Your task to perform on an android device: turn on data saver in the chrome app Image 0: 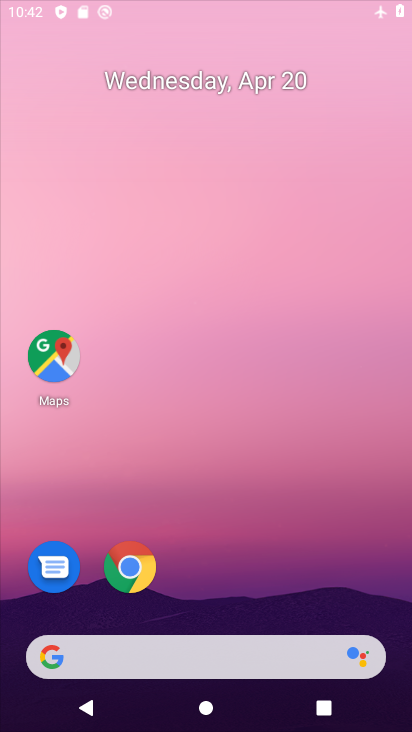
Step 0: drag from (274, 257) to (263, 179)
Your task to perform on an android device: turn on data saver in the chrome app Image 1: 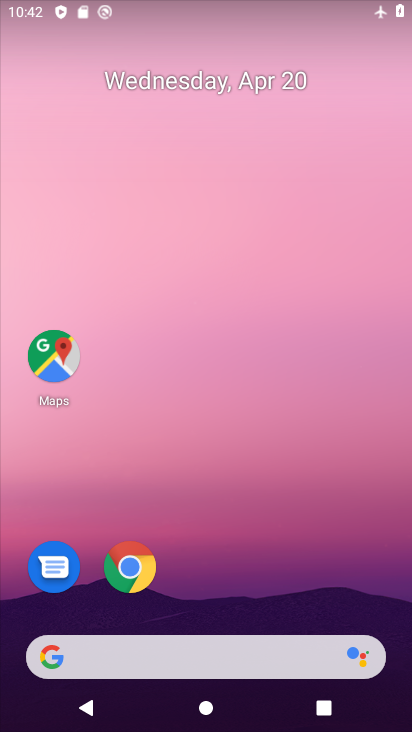
Step 1: drag from (219, 527) to (265, 213)
Your task to perform on an android device: turn on data saver in the chrome app Image 2: 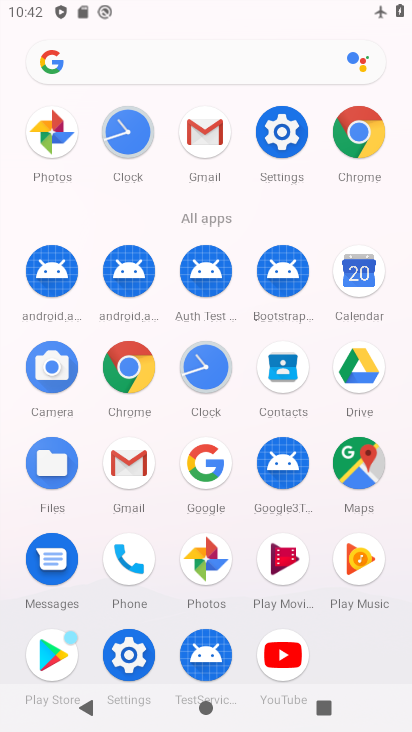
Step 2: click (133, 353)
Your task to perform on an android device: turn on data saver in the chrome app Image 3: 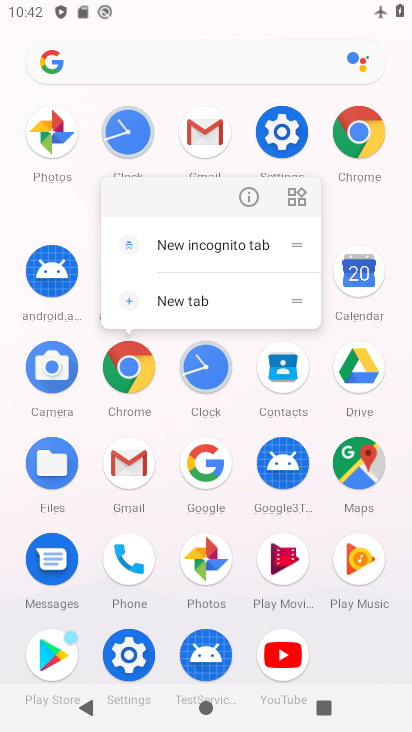
Step 3: click (131, 354)
Your task to perform on an android device: turn on data saver in the chrome app Image 4: 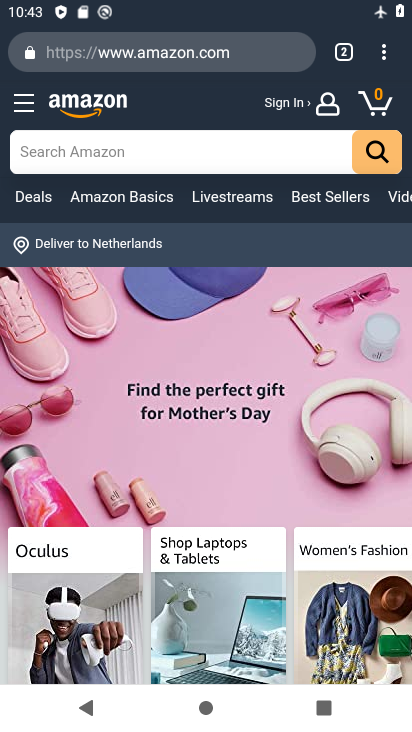
Step 4: click (383, 54)
Your task to perform on an android device: turn on data saver in the chrome app Image 5: 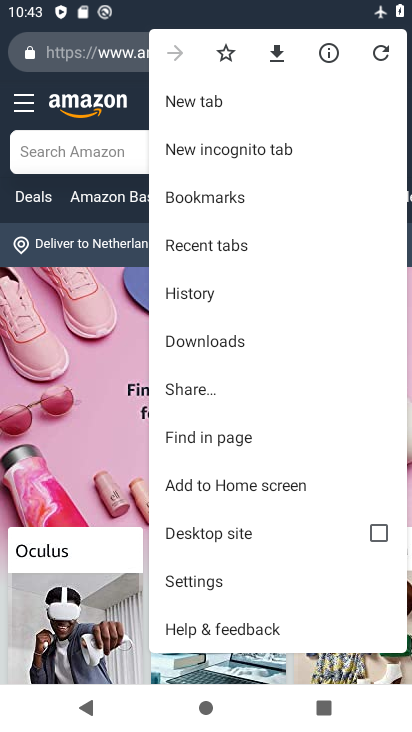
Step 5: click (247, 579)
Your task to perform on an android device: turn on data saver in the chrome app Image 6: 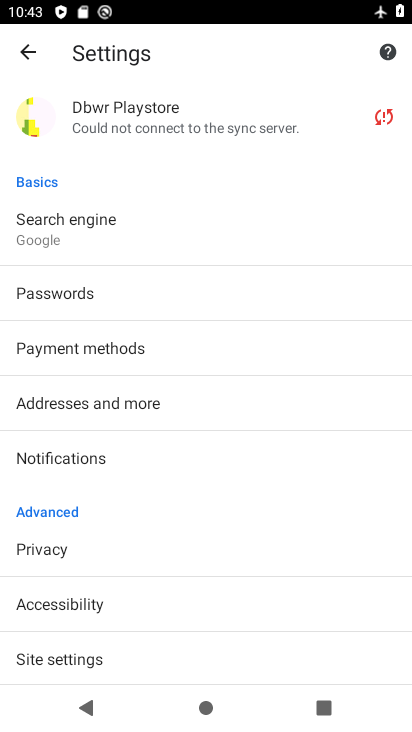
Step 6: drag from (223, 569) to (291, 133)
Your task to perform on an android device: turn on data saver in the chrome app Image 7: 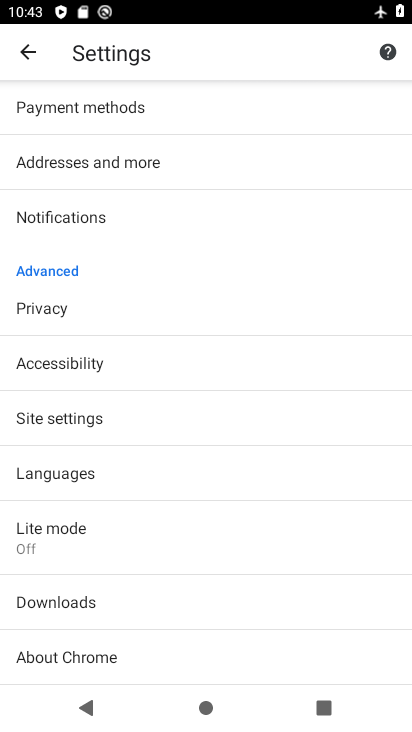
Step 7: drag from (167, 624) to (293, 161)
Your task to perform on an android device: turn on data saver in the chrome app Image 8: 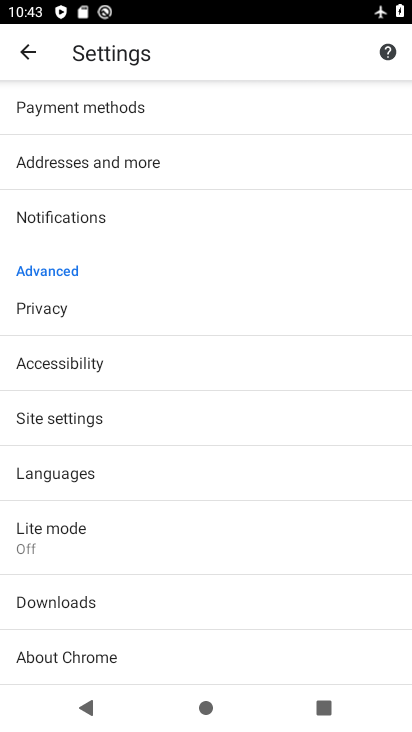
Step 8: click (131, 546)
Your task to perform on an android device: turn on data saver in the chrome app Image 9: 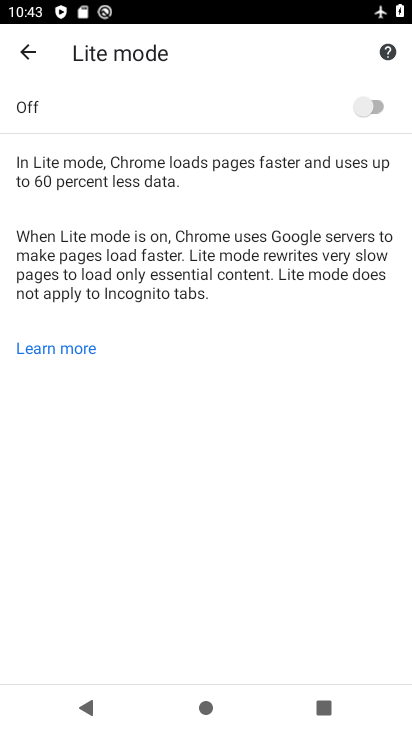
Step 9: click (381, 99)
Your task to perform on an android device: turn on data saver in the chrome app Image 10: 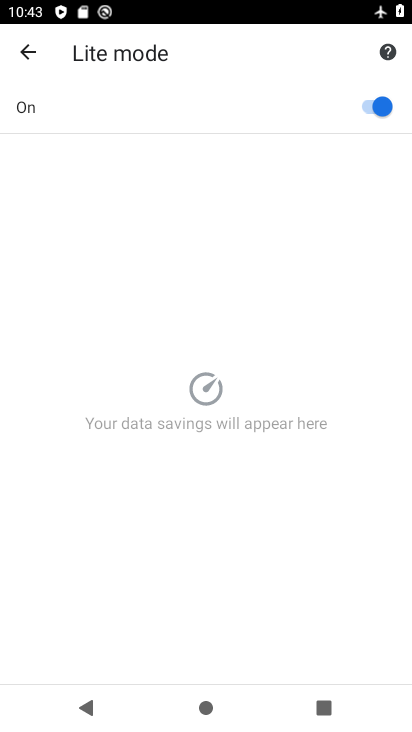
Step 10: task complete